Your task to perform on an android device: delete location history Image 0: 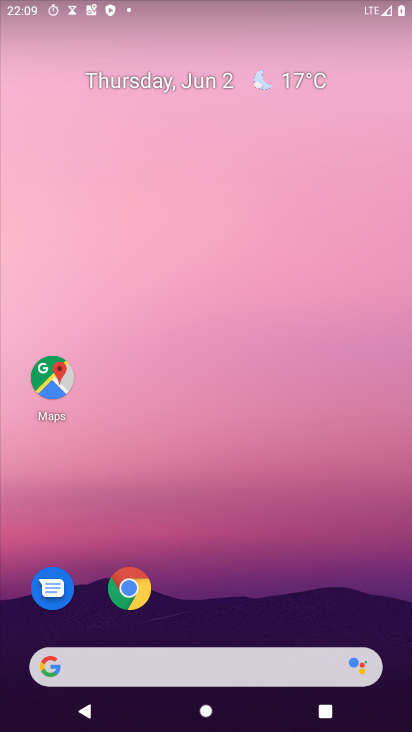
Step 0: click (35, 378)
Your task to perform on an android device: delete location history Image 1: 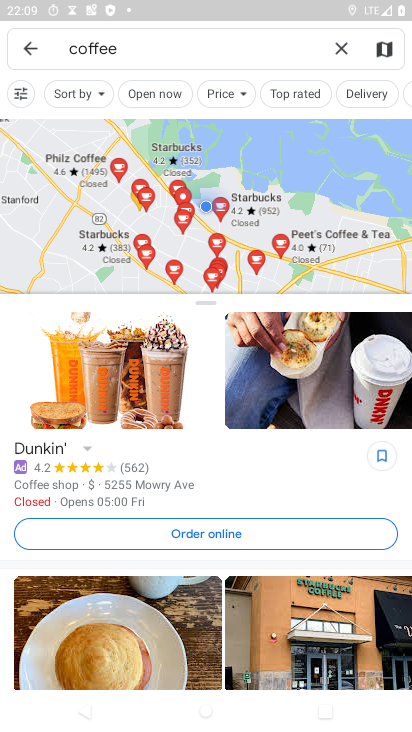
Step 1: click (23, 40)
Your task to perform on an android device: delete location history Image 2: 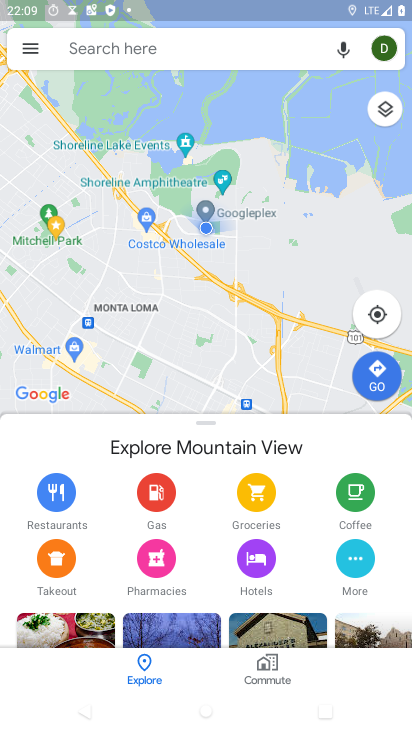
Step 2: click (31, 45)
Your task to perform on an android device: delete location history Image 3: 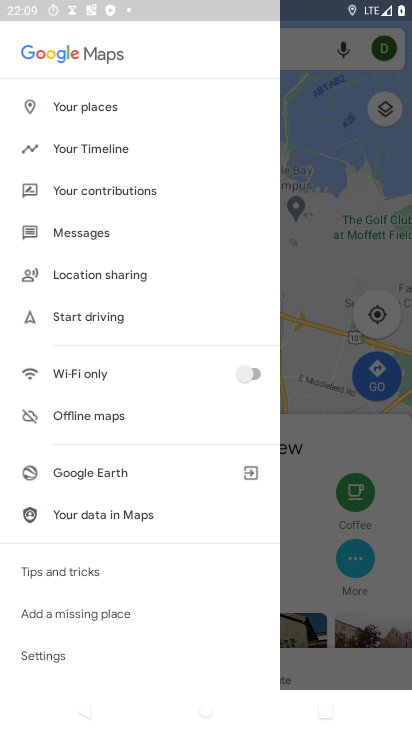
Step 3: click (101, 147)
Your task to perform on an android device: delete location history Image 4: 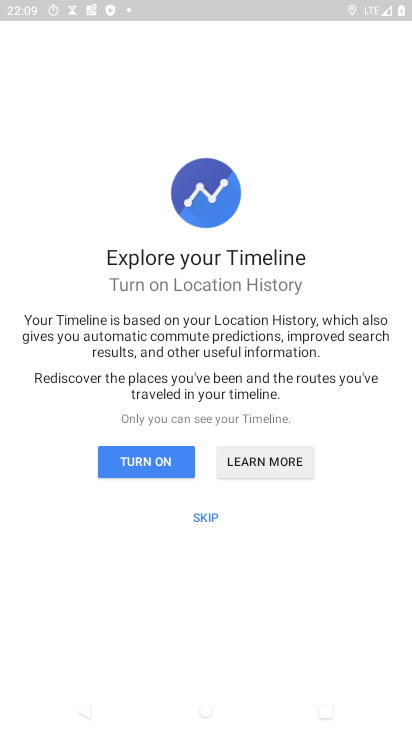
Step 4: click (205, 512)
Your task to perform on an android device: delete location history Image 5: 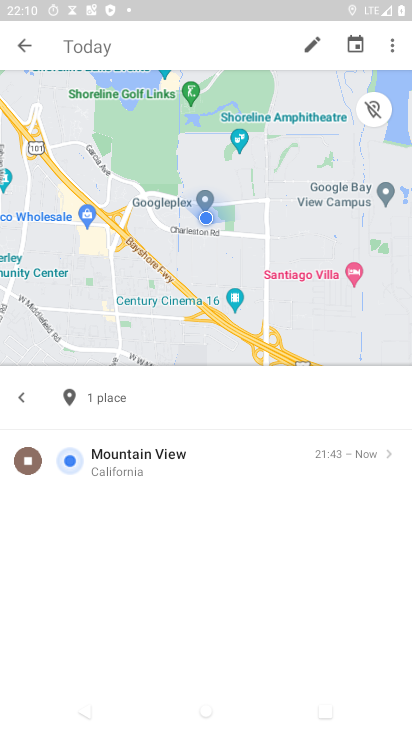
Step 5: click (386, 40)
Your task to perform on an android device: delete location history Image 6: 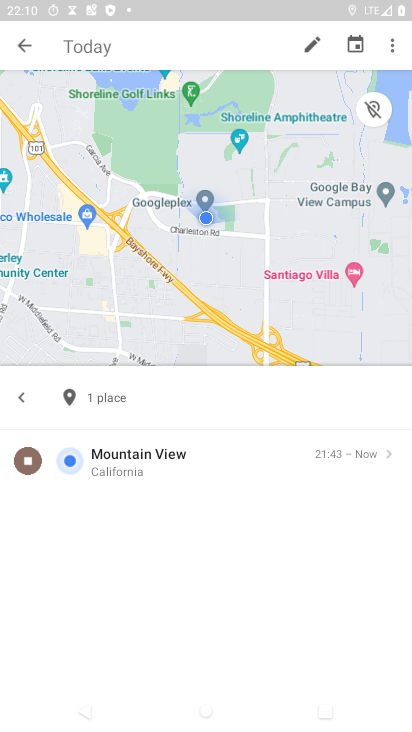
Step 6: click (386, 41)
Your task to perform on an android device: delete location history Image 7: 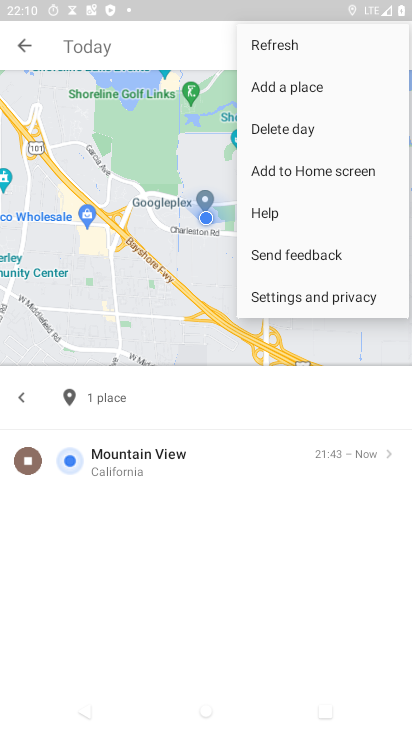
Step 7: click (299, 294)
Your task to perform on an android device: delete location history Image 8: 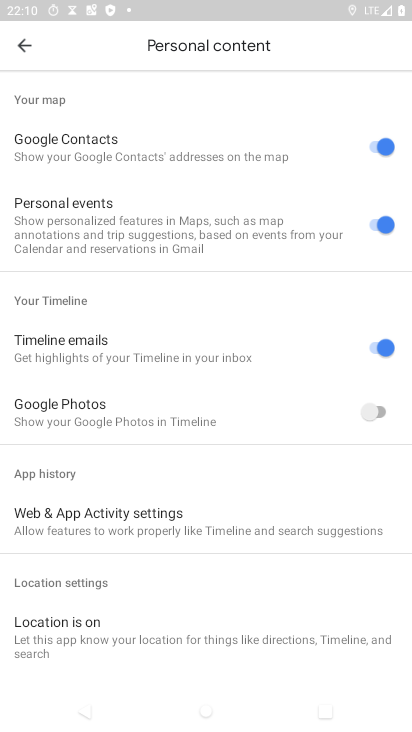
Step 8: drag from (143, 642) to (192, 191)
Your task to perform on an android device: delete location history Image 9: 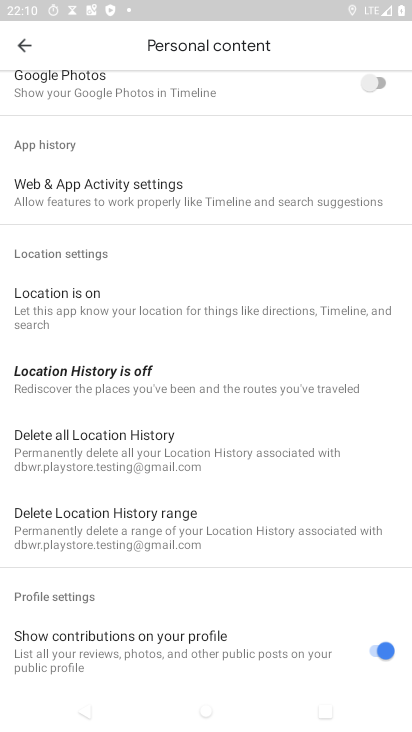
Step 9: click (126, 449)
Your task to perform on an android device: delete location history Image 10: 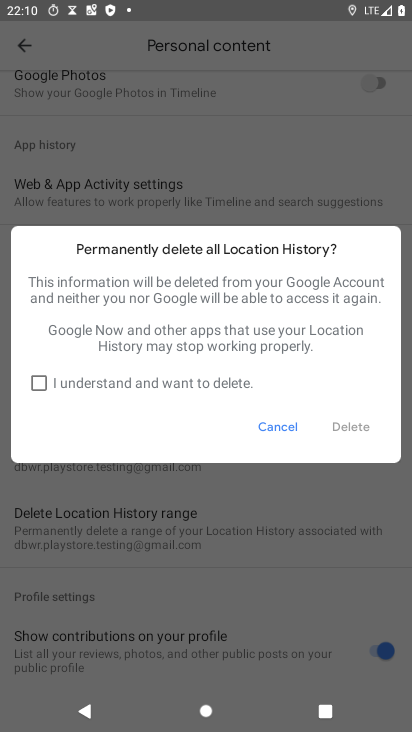
Step 10: click (90, 389)
Your task to perform on an android device: delete location history Image 11: 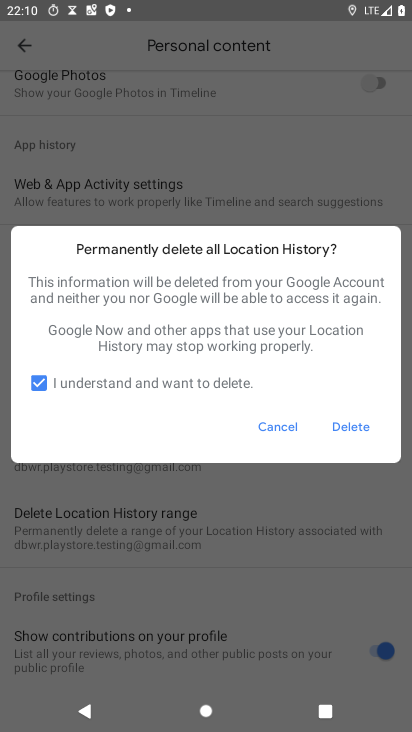
Step 11: click (352, 419)
Your task to perform on an android device: delete location history Image 12: 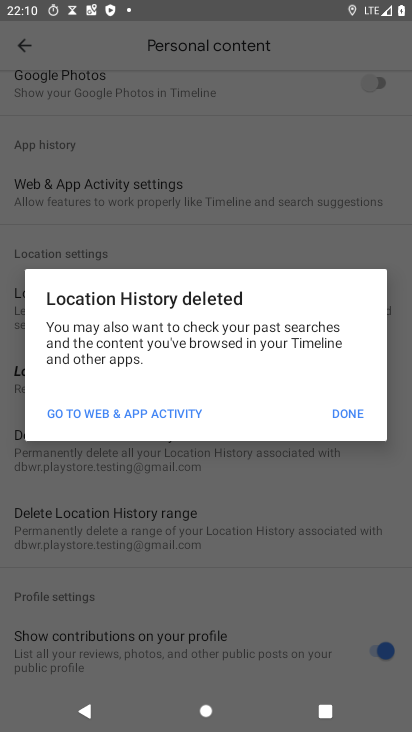
Step 12: click (352, 409)
Your task to perform on an android device: delete location history Image 13: 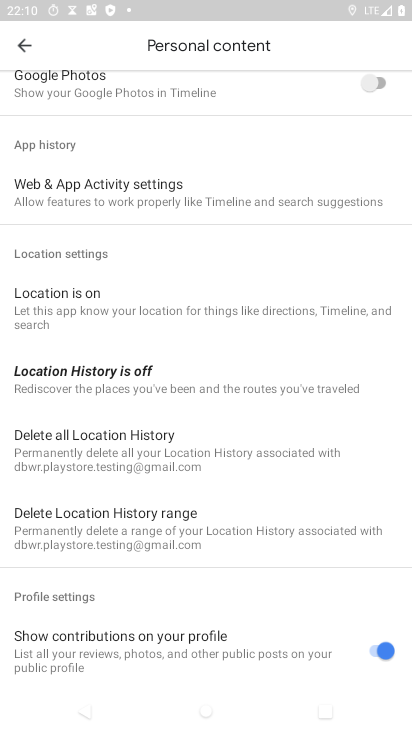
Step 13: task complete